Your task to perform on an android device: When is my next appointment? Image 0: 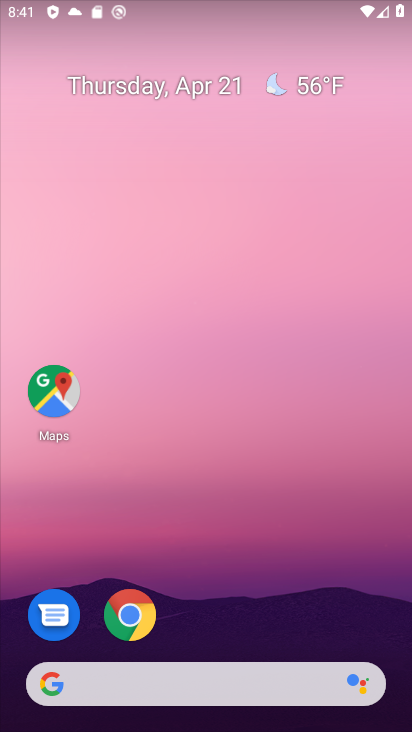
Step 0: click (133, 611)
Your task to perform on an android device: When is my next appointment? Image 1: 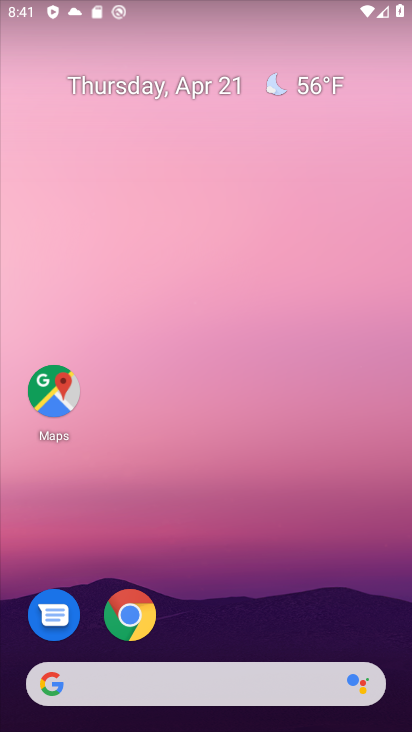
Step 1: click (123, 614)
Your task to perform on an android device: When is my next appointment? Image 2: 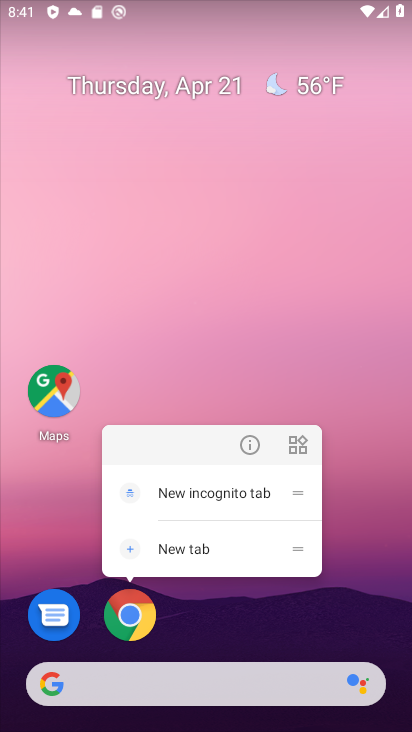
Step 2: click (126, 606)
Your task to perform on an android device: When is my next appointment? Image 3: 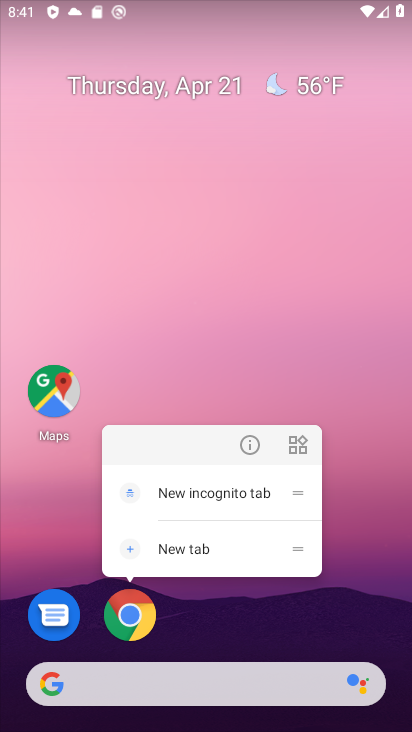
Step 3: click (130, 617)
Your task to perform on an android device: When is my next appointment? Image 4: 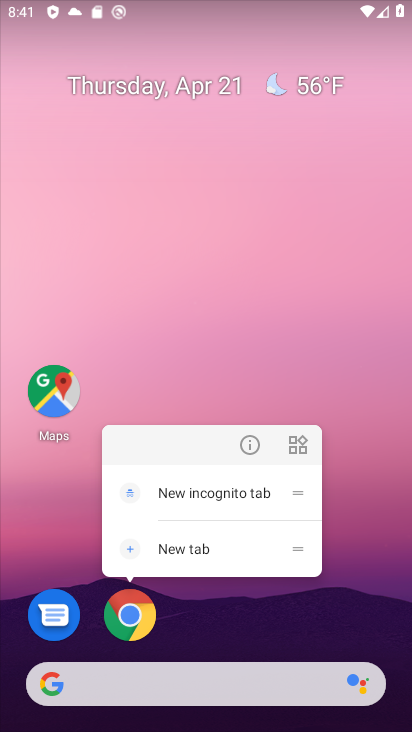
Step 4: click (130, 630)
Your task to perform on an android device: When is my next appointment? Image 5: 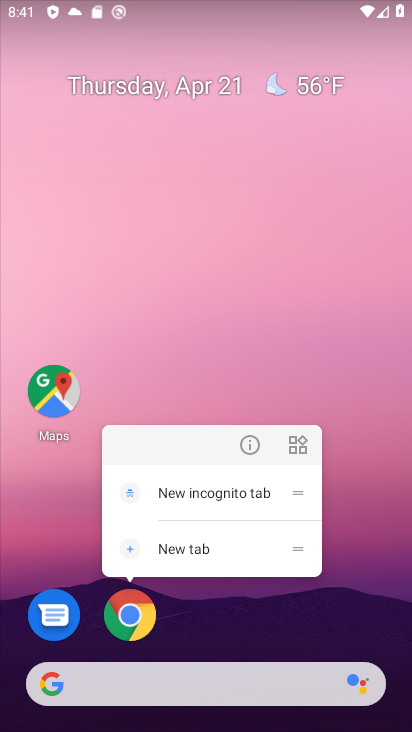
Step 5: click (136, 627)
Your task to perform on an android device: When is my next appointment? Image 6: 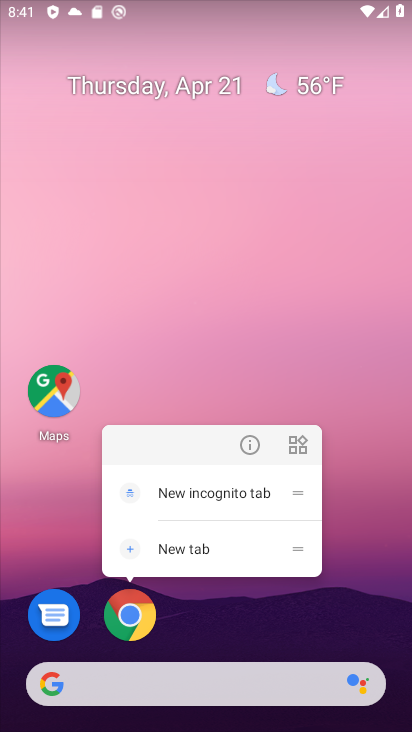
Step 6: click (120, 346)
Your task to perform on an android device: When is my next appointment? Image 7: 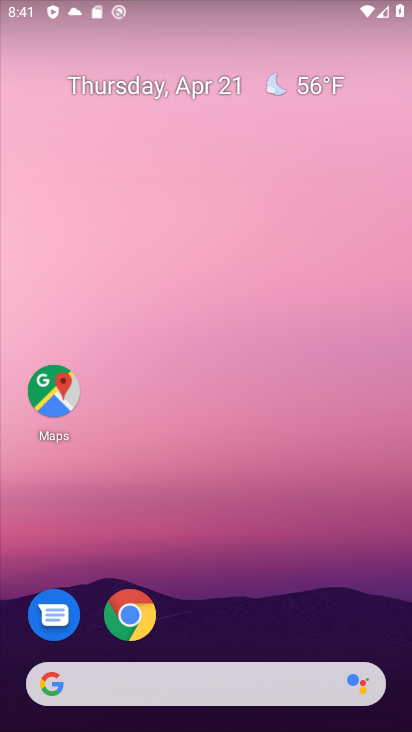
Step 7: drag from (327, 605) to (233, 54)
Your task to perform on an android device: When is my next appointment? Image 8: 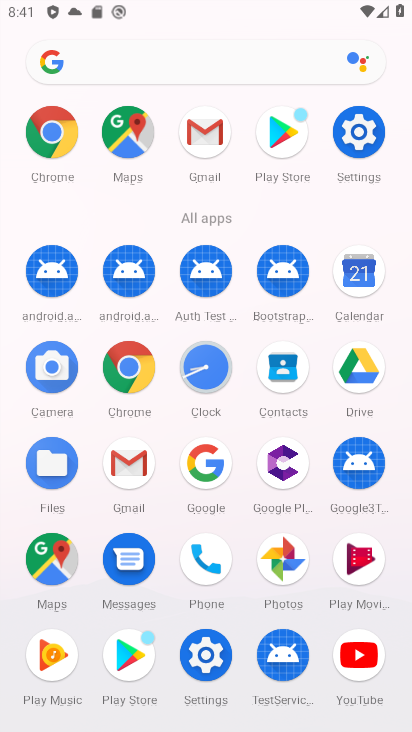
Step 8: click (352, 289)
Your task to perform on an android device: When is my next appointment? Image 9: 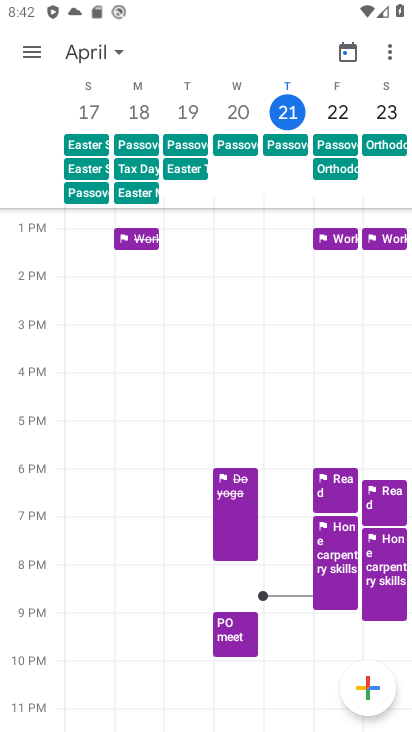
Step 9: click (92, 55)
Your task to perform on an android device: When is my next appointment? Image 10: 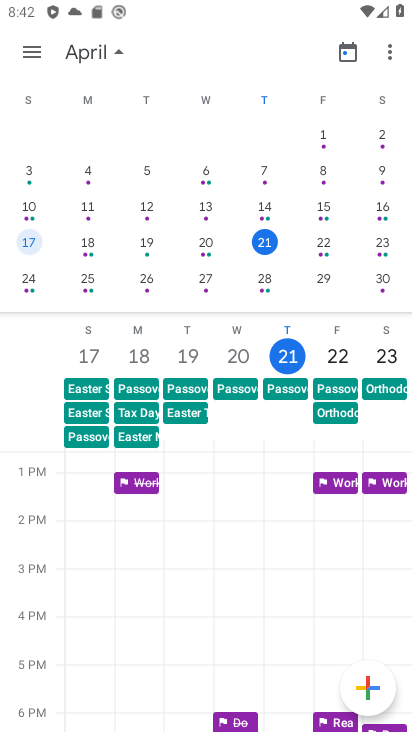
Step 10: click (34, 57)
Your task to perform on an android device: When is my next appointment? Image 11: 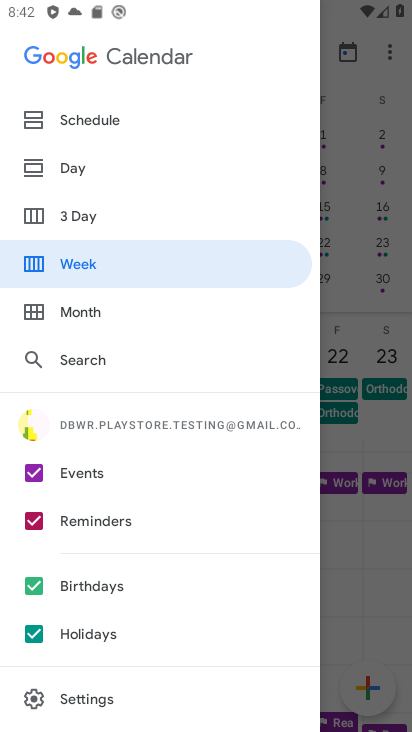
Step 11: click (33, 639)
Your task to perform on an android device: When is my next appointment? Image 12: 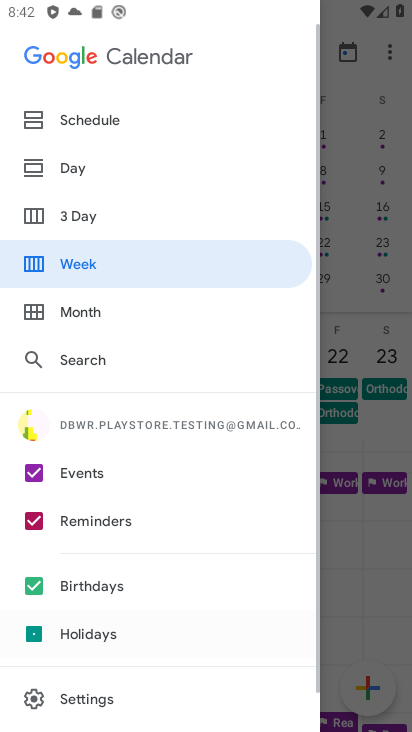
Step 12: click (37, 568)
Your task to perform on an android device: When is my next appointment? Image 13: 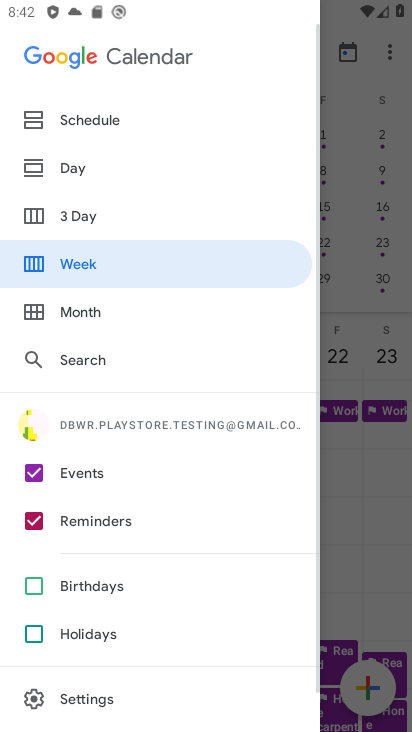
Step 13: click (32, 526)
Your task to perform on an android device: When is my next appointment? Image 14: 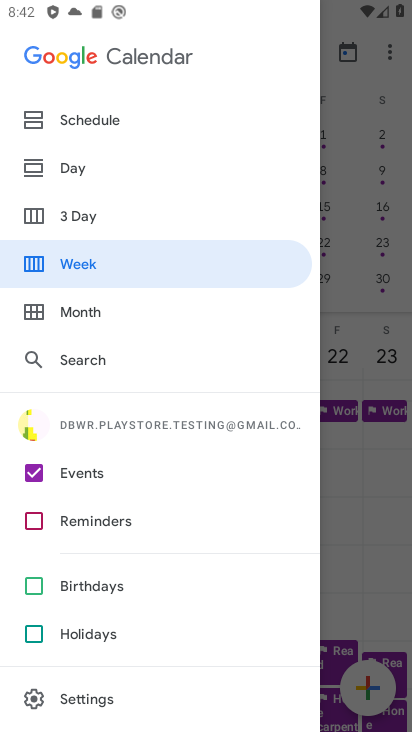
Step 14: click (32, 526)
Your task to perform on an android device: When is my next appointment? Image 15: 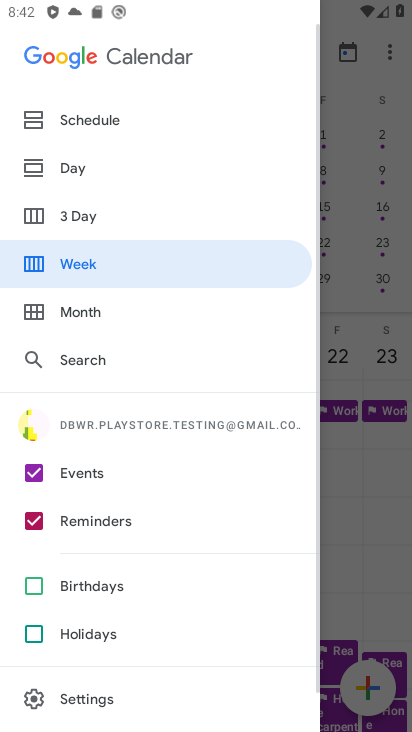
Step 15: click (350, 541)
Your task to perform on an android device: When is my next appointment? Image 16: 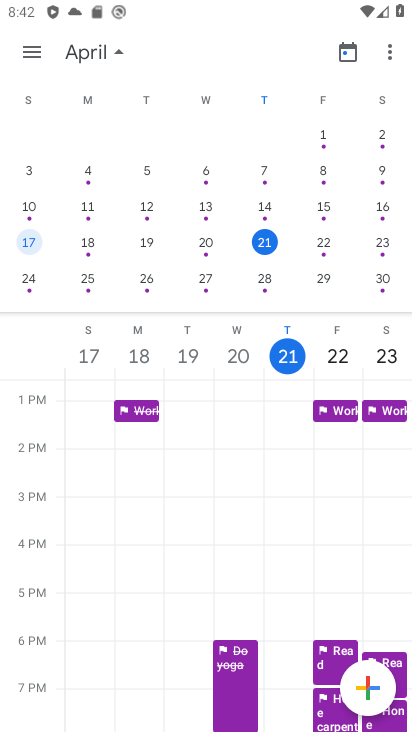
Step 16: task complete